Your task to perform on an android device: Go to privacy settings Image 0: 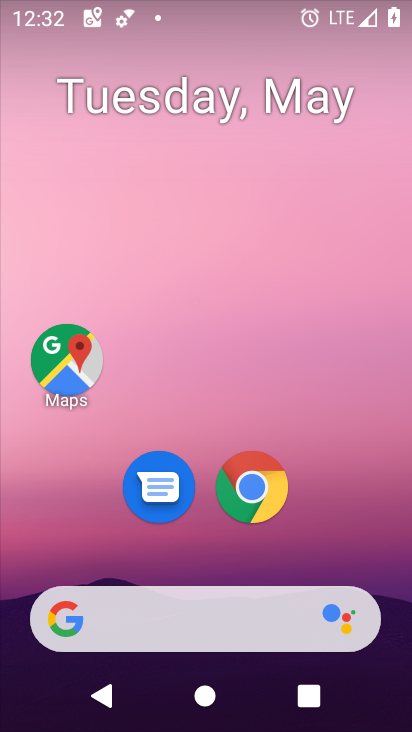
Step 0: drag from (44, 564) to (247, 230)
Your task to perform on an android device: Go to privacy settings Image 1: 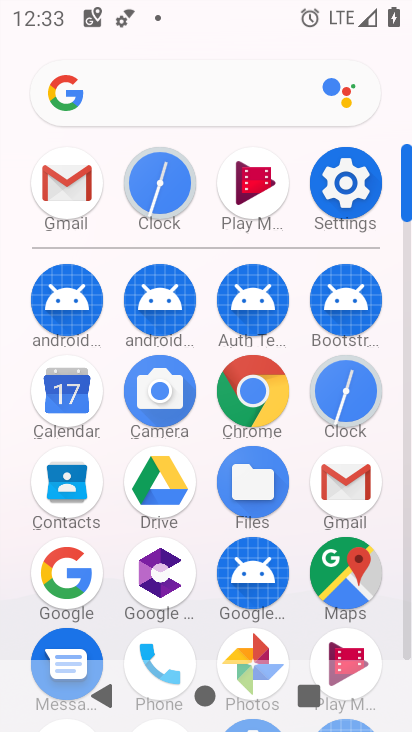
Step 1: click (336, 169)
Your task to perform on an android device: Go to privacy settings Image 2: 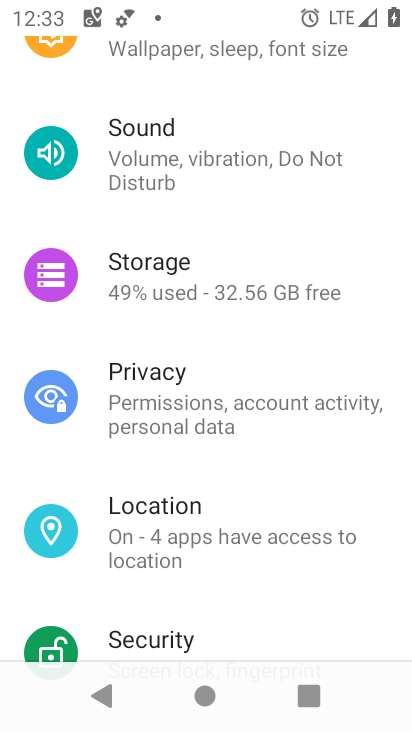
Step 2: click (187, 377)
Your task to perform on an android device: Go to privacy settings Image 3: 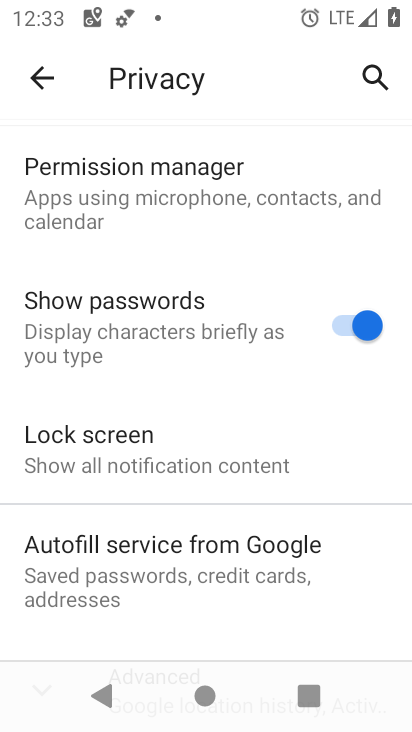
Step 3: task complete